Your task to perform on an android device: turn off improve location accuracy Image 0: 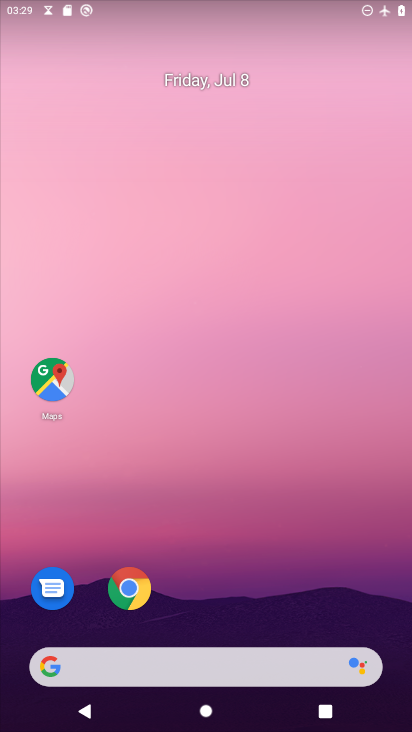
Step 0: drag from (202, 606) to (183, 27)
Your task to perform on an android device: turn off improve location accuracy Image 1: 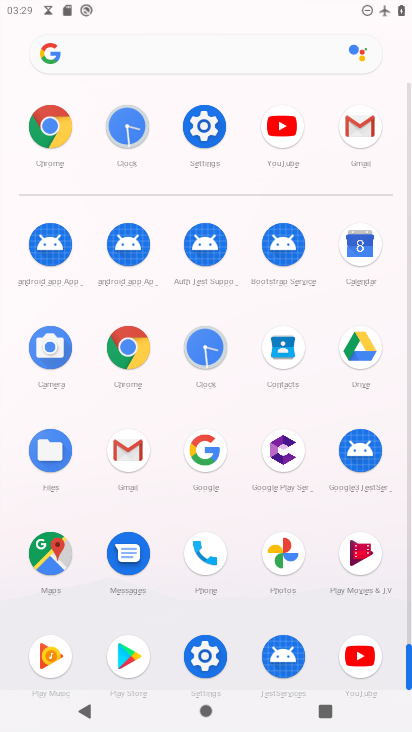
Step 1: click (206, 137)
Your task to perform on an android device: turn off improve location accuracy Image 2: 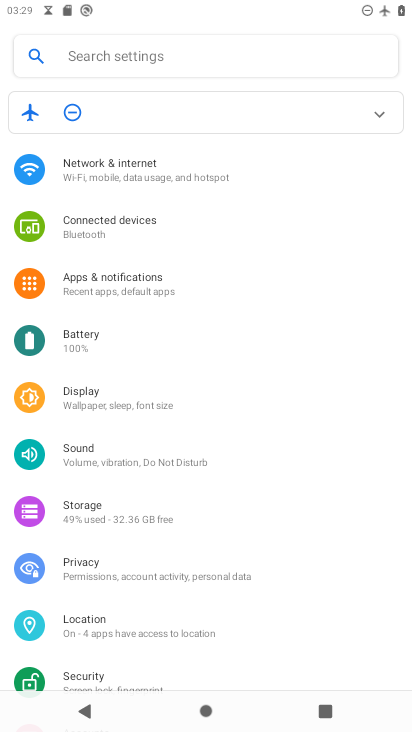
Step 2: drag from (140, 562) to (129, 224)
Your task to perform on an android device: turn off improve location accuracy Image 3: 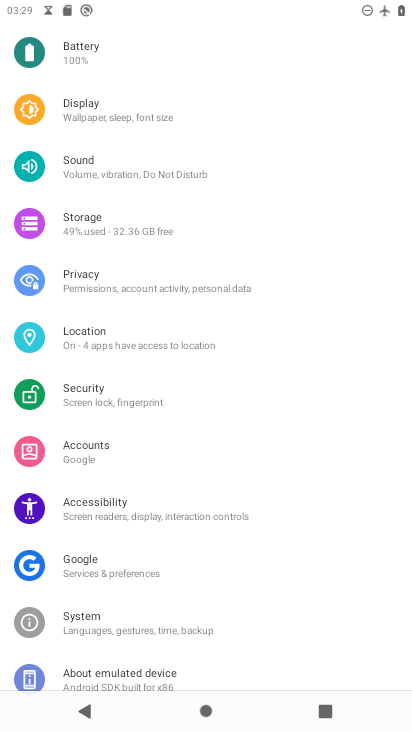
Step 3: click (89, 333)
Your task to perform on an android device: turn off improve location accuracy Image 4: 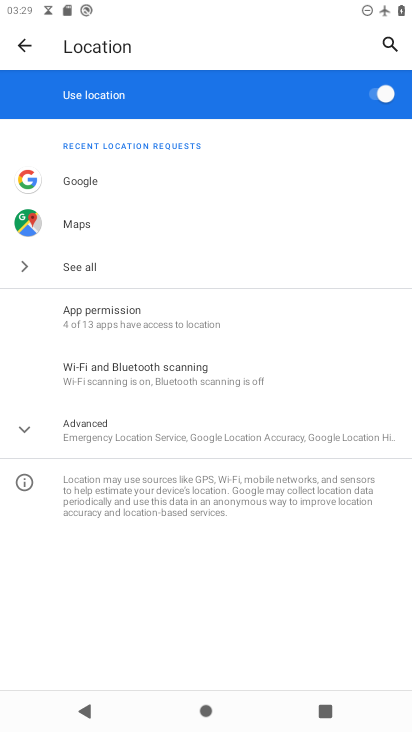
Step 4: click (97, 428)
Your task to perform on an android device: turn off improve location accuracy Image 5: 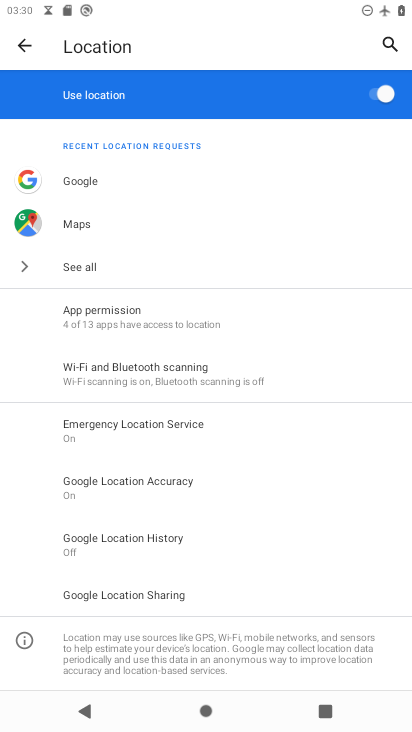
Step 5: click (181, 478)
Your task to perform on an android device: turn off improve location accuracy Image 6: 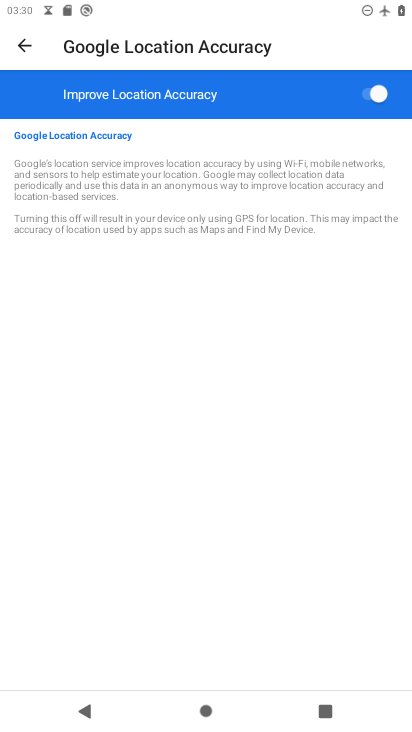
Step 6: click (368, 95)
Your task to perform on an android device: turn off improve location accuracy Image 7: 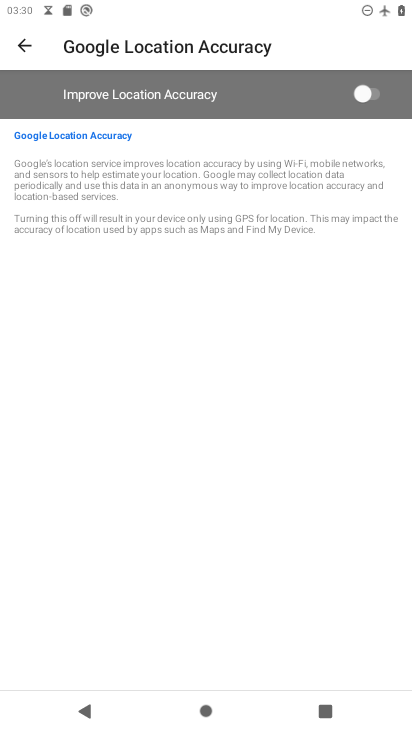
Step 7: task complete